Your task to perform on an android device: open a bookmark in the chrome app Image 0: 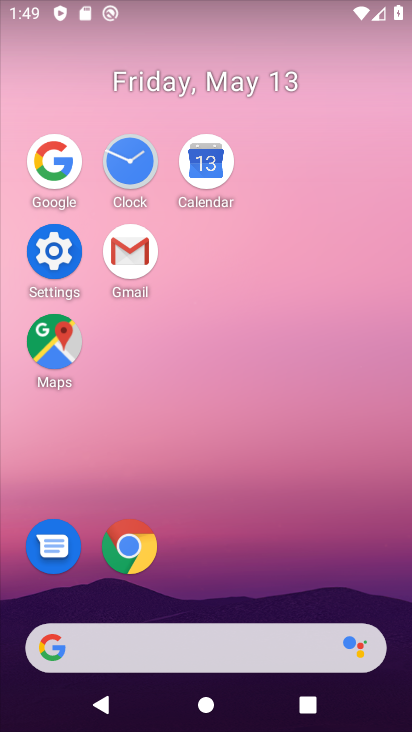
Step 0: click (138, 560)
Your task to perform on an android device: open a bookmark in the chrome app Image 1: 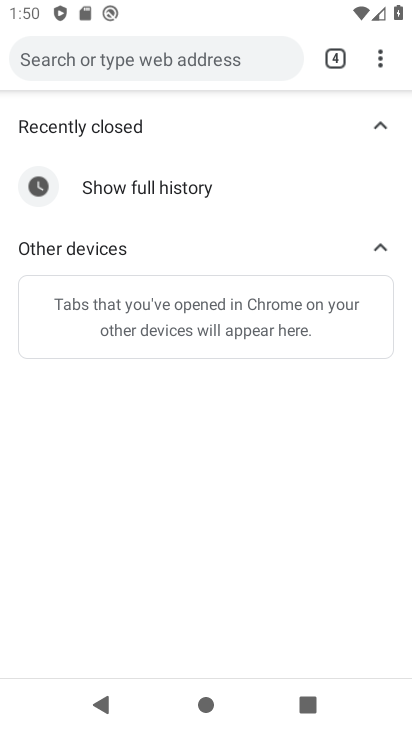
Step 1: click (382, 67)
Your task to perform on an android device: open a bookmark in the chrome app Image 2: 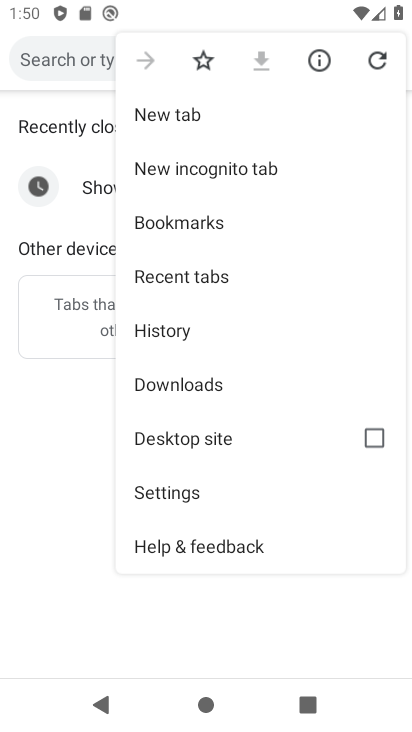
Step 2: click (243, 225)
Your task to perform on an android device: open a bookmark in the chrome app Image 3: 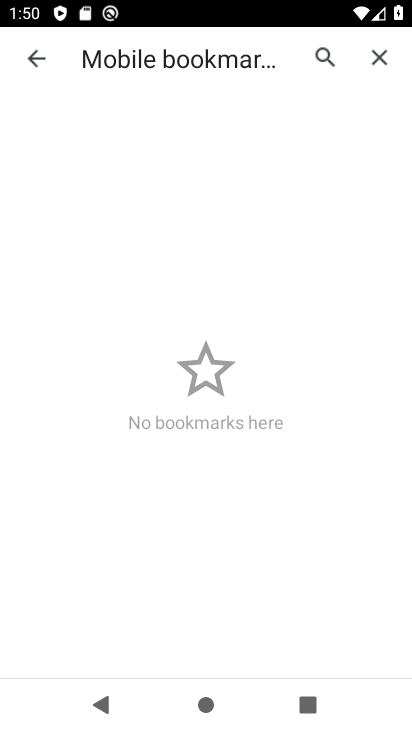
Step 3: task complete